Your task to perform on an android device: make emails show in primary in the gmail app Image 0: 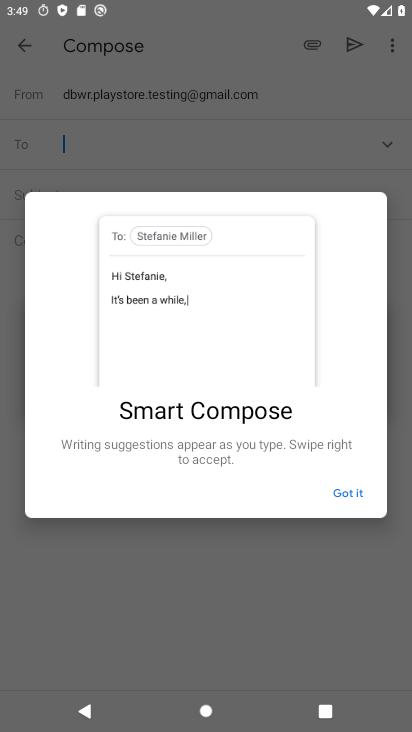
Step 0: press home button
Your task to perform on an android device: make emails show in primary in the gmail app Image 1: 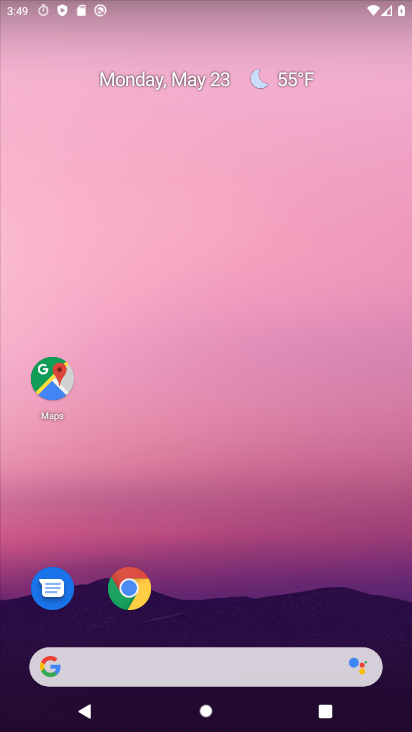
Step 1: drag from (213, 575) to (252, 97)
Your task to perform on an android device: make emails show in primary in the gmail app Image 2: 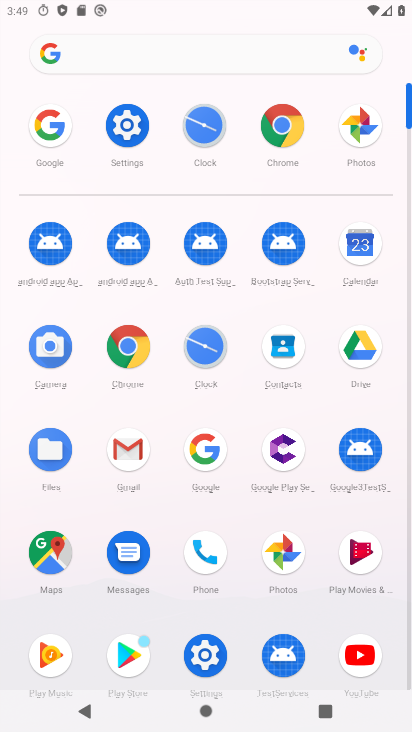
Step 2: click (123, 454)
Your task to perform on an android device: make emails show in primary in the gmail app Image 3: 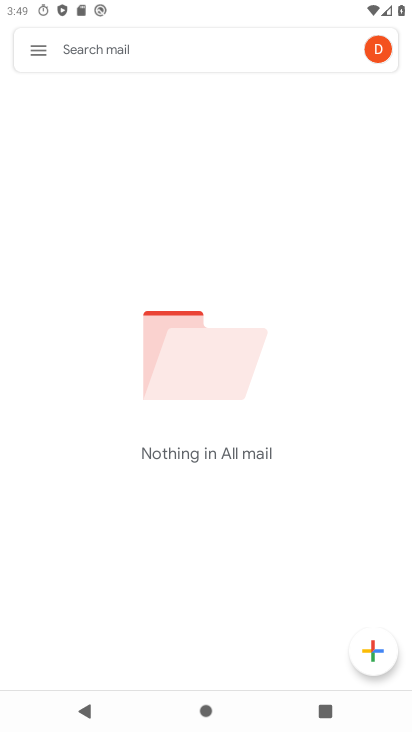
Step 3: click (32, 58)
Your task to perform on an android device: make emails show in primary in the gmail app Image 4: 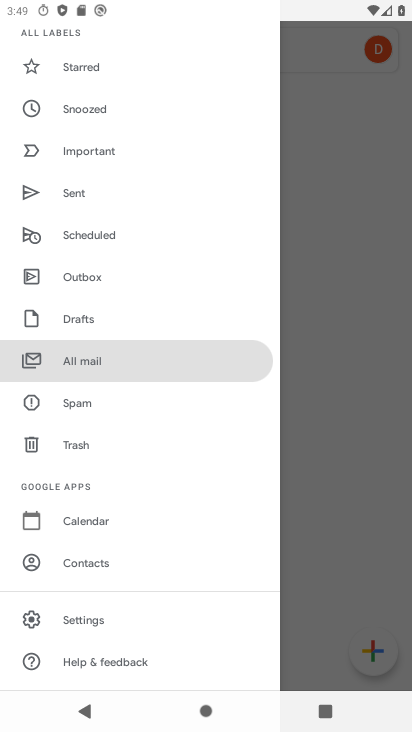
Step 4: click (89, 616)
Your task to perform on an android device: make emails show in primary in the gmail app Image 5: 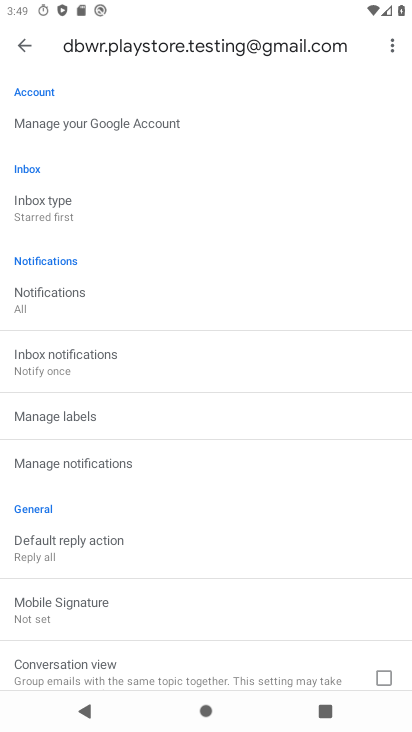
Step 5: click (68, 206)
Your task to perform on an android device: make emails show in primary in the gmail app Image 6: 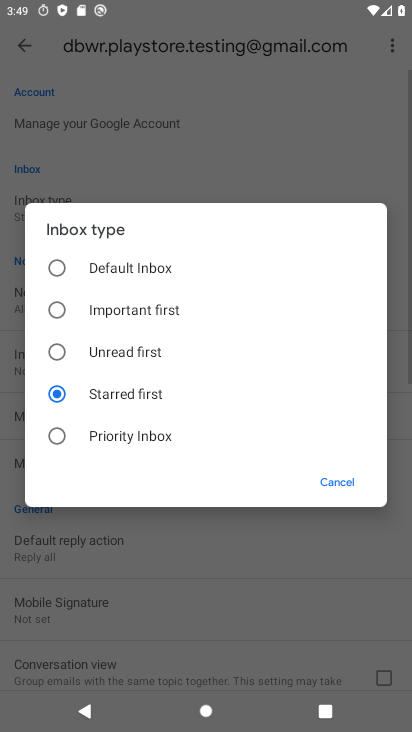
Step 6: click (74, 273)
Your task to perform on an android device: make emails show in primary in the gmail app Image 7: 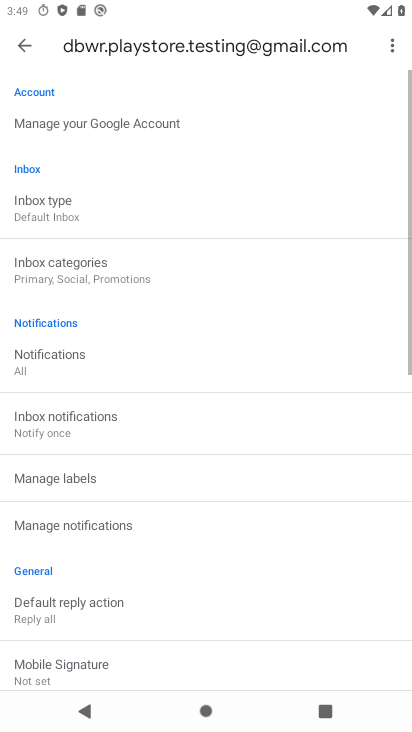
Step 7: click (64, 280)
Your task to perform on an android device: make emails show in primary in the gmail app Image 8: 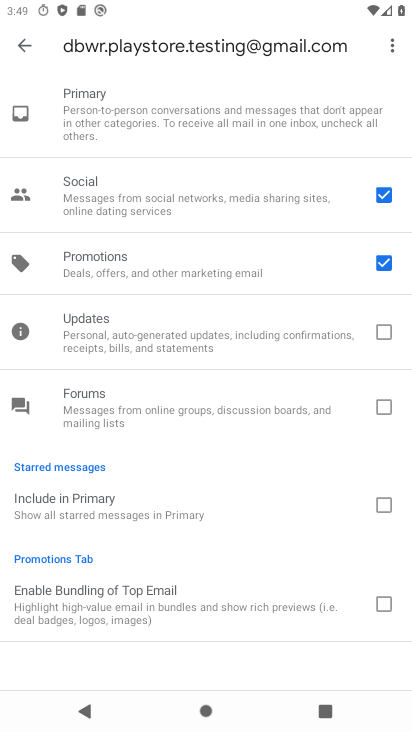
Step 8: click (382, 267)
Your task to perform on an android device: make emails show in primary in the gmail app Image 9: 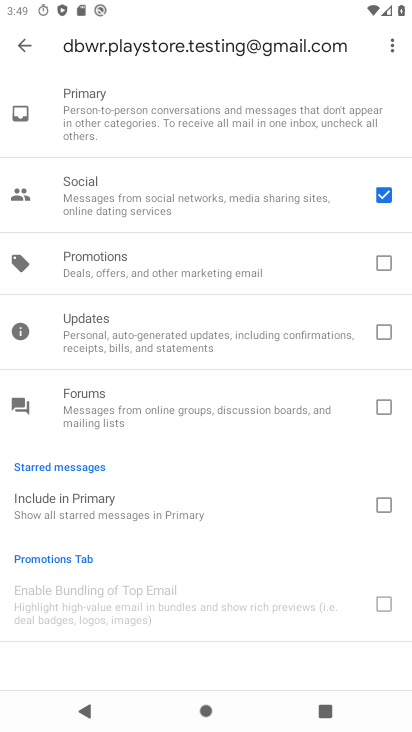
Step 9: click (372, 193)
Your task to perform on an android device: make emails show in primary in the gmail app Image 10: 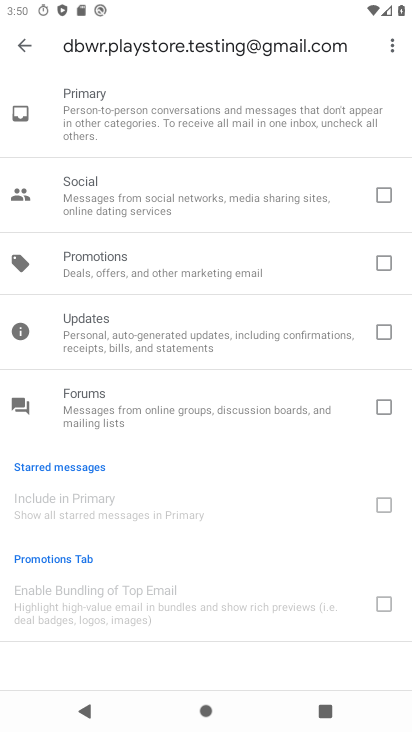
Step 10: task complete